Your task to perform on an android device: Open sound settings Image 0: 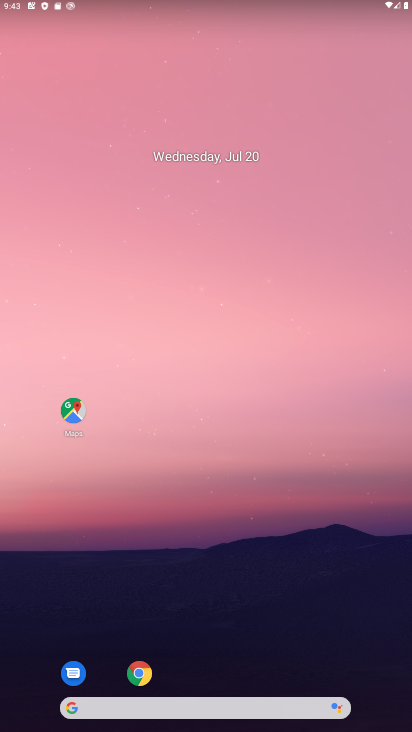
Step 0: drag from (153, 702) to (131, 267)
Your task to perform on an android device: Open sound settings Image 1: 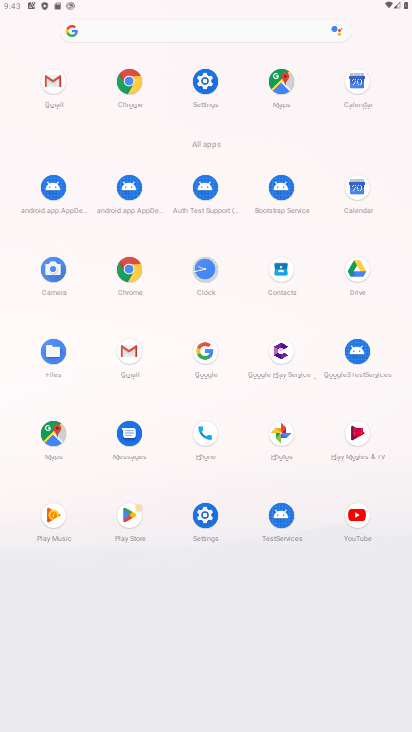
Step 1: click (206, 517)
Your task to perform on an android device: Open sound settings Image 2: 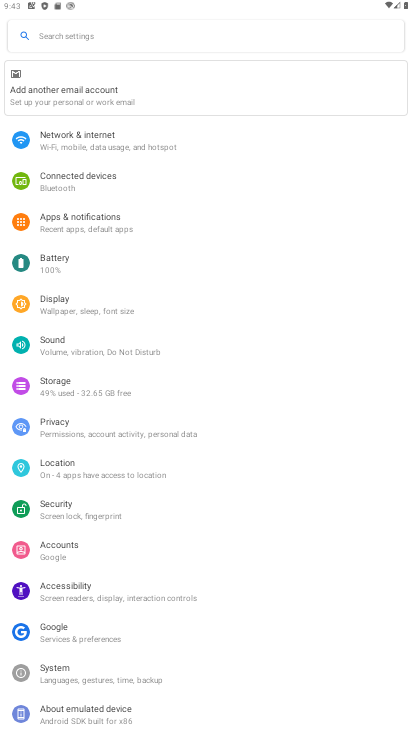
Step 2: click (77, 341)
Your task to perform on an android device: Open sound settings Image 3: 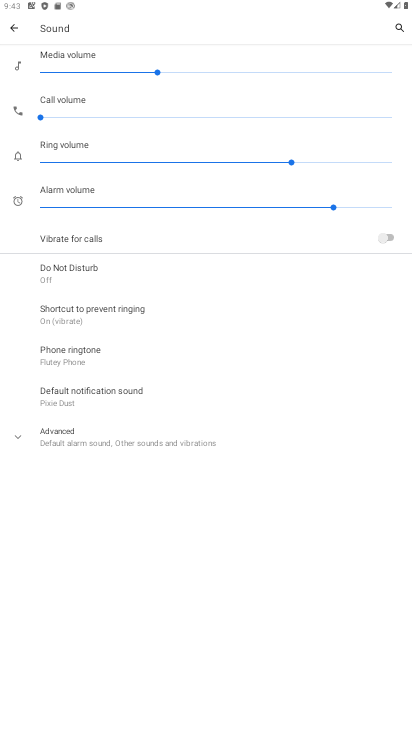
Step 3: task complete